Your task to perform on an android device: clear history in the chrome app Image 0: 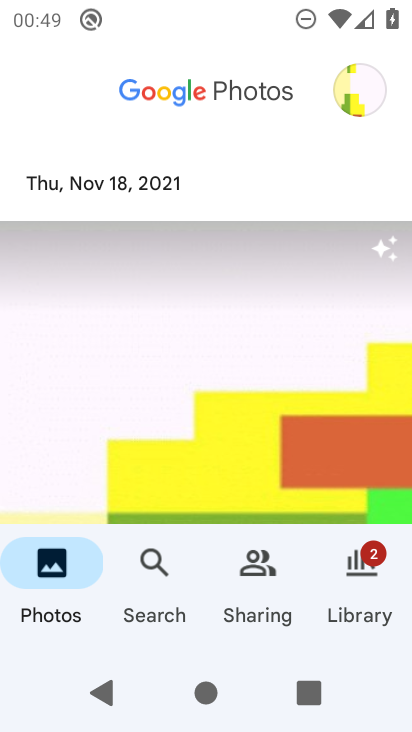
Step 0: drag from (320, 359) to (338, 137)
Your task to perform on an android device: clear history in the chrome app Image 1: 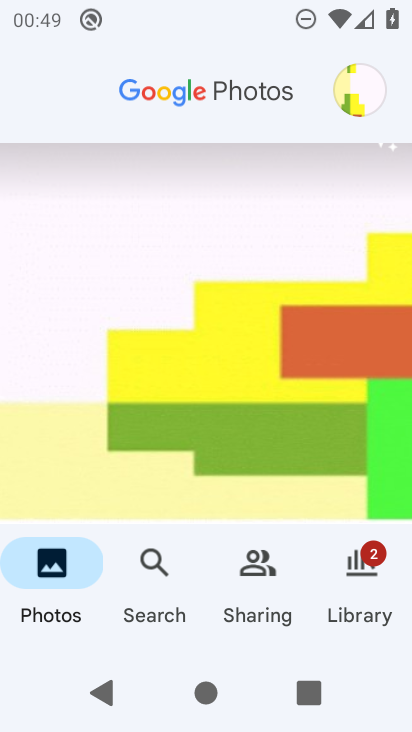
Step 1: drag from (334, 452) to (328, 173)
Your task to perform on an android device: clear history in the chrome app Image 2: 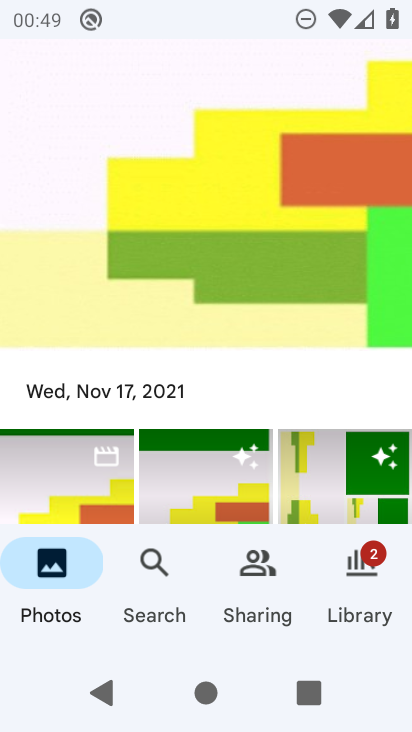
Step 2: drag from (307, 614) to (344, 253)
Your task to perform on an android device: clear history in the chrome app Image 3: 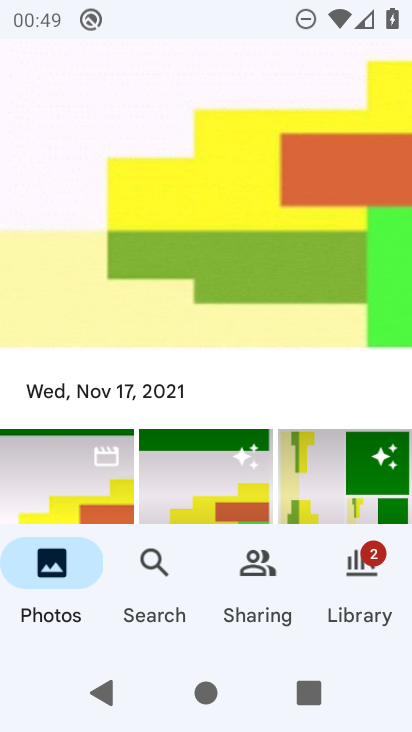
Step 3: press home button
Your task to perform on an android device: clear history in the chrome app Image 4: 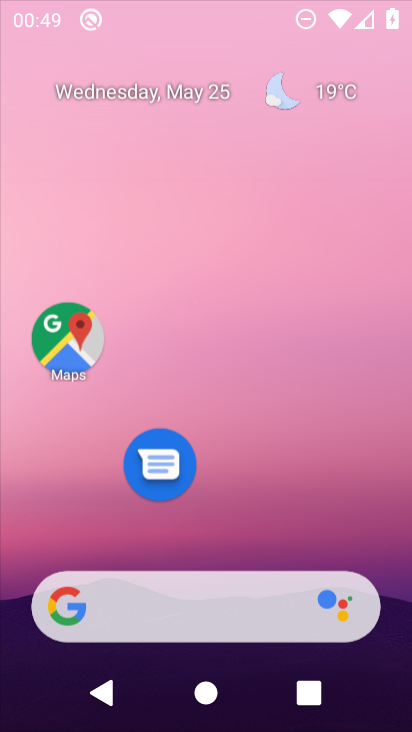
Step 4: drag from (146, 437) to (227, 223)
Your task to perform on an android device: clear history in the chrome app Image 5: 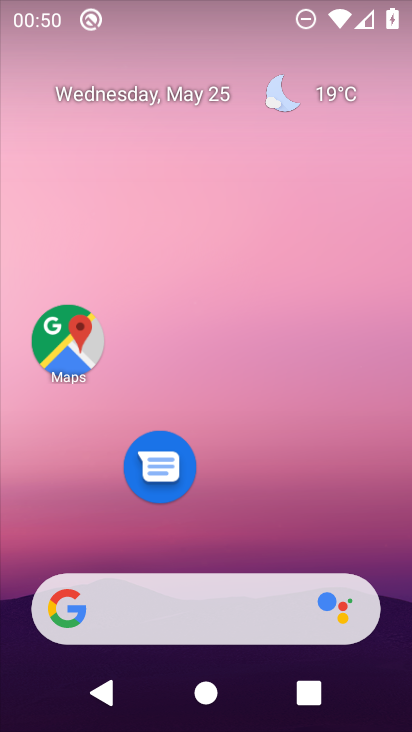
Step 5: drag from (205, 565) to (213, 70)
Your task to perform on an android device: clear history in the chrome app Image 6: 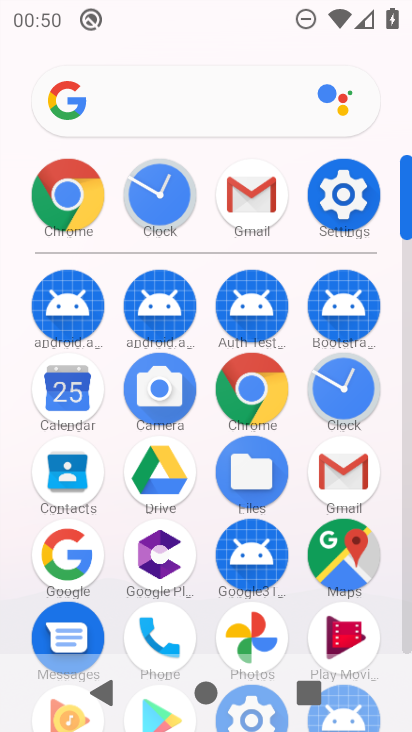
Step 6: click (235, 387)
Your task to perform on an android device: clear history in the chrome app Image 7: 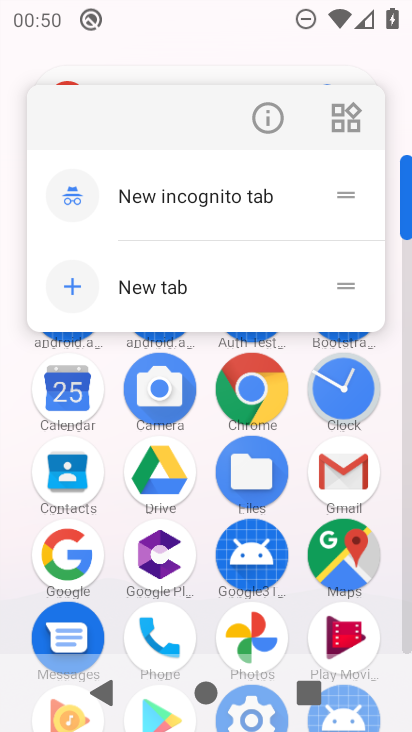
Step 7: click (261, 115)
Your task to perform on an android device: clear history in the chrome app Image 8: 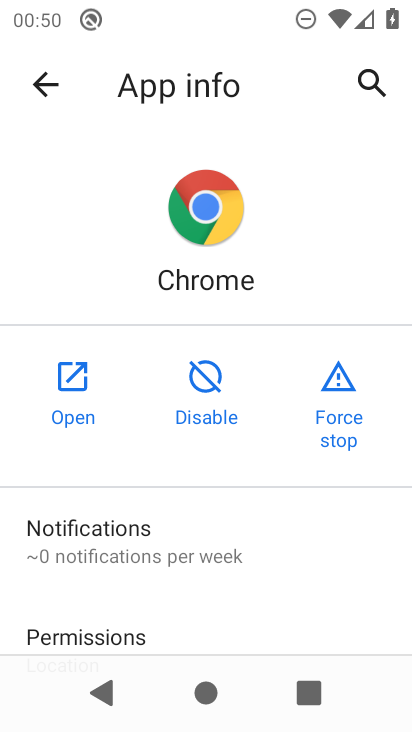
Step 8: click (85, 381)
Your task to perform on an android device: clear history in the chrome app Image 9: 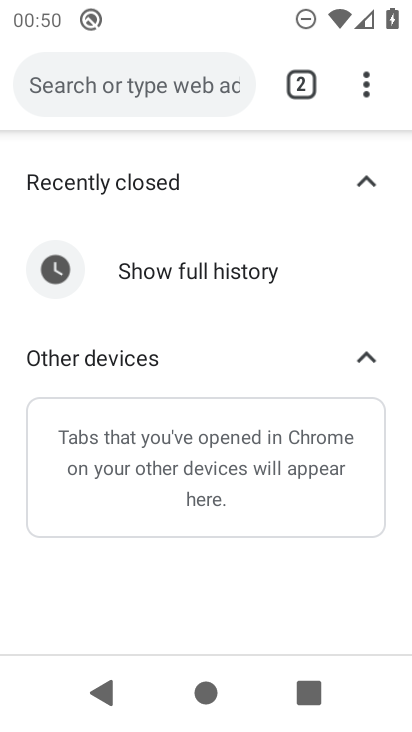
Step 9: click (334, 92)
Your task to perform on an android device: clear history in the chrome app Image 10: 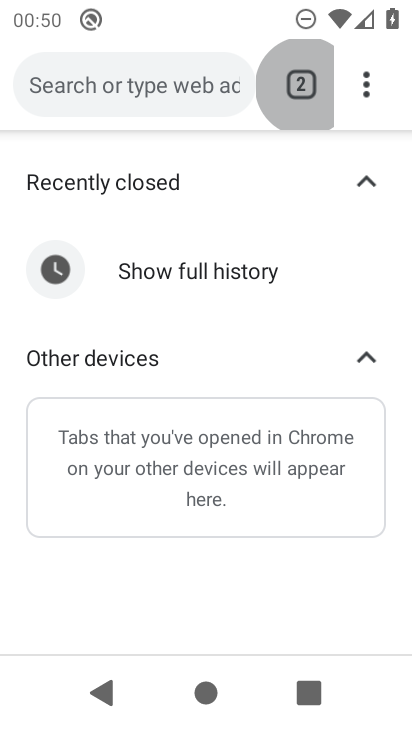
Step 10: click (336, 91)
Your task to perform on an android device: clear history in the chrome app Image 11: 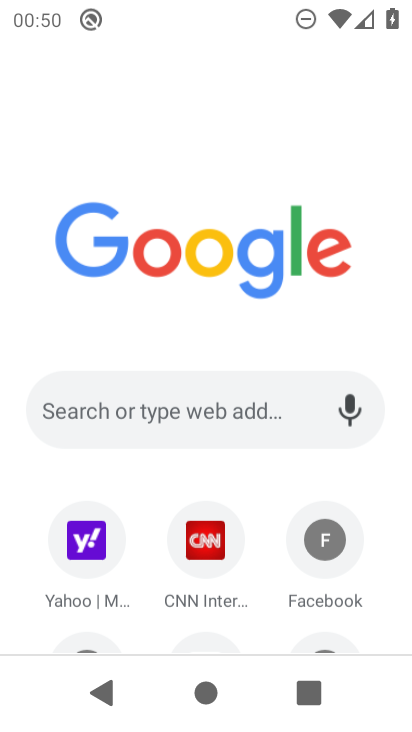
Step 11: click (250, 421)
Your task to perform on an android device: clear history in the chrome app Image 12: 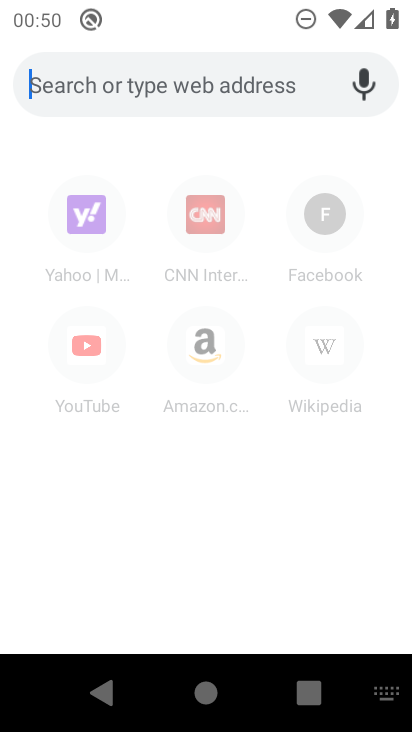
Step 12: click (196, 561)
Your task to perform on an android device: clear history in the chrome app Image 13: 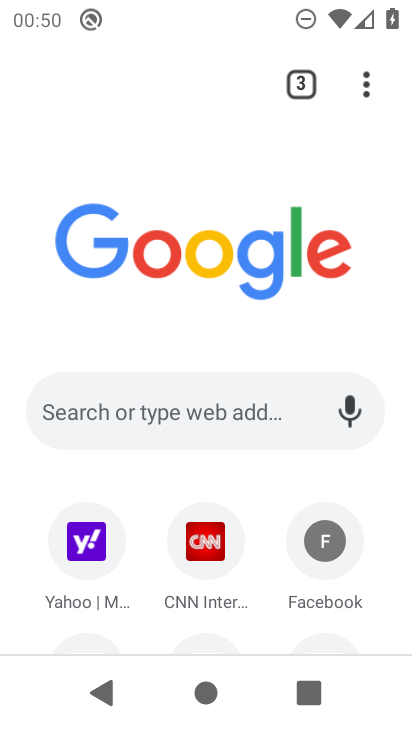
Step 13: click (398, 71)
Your task to perform on an android device: clear history in the chrome app Image 14: 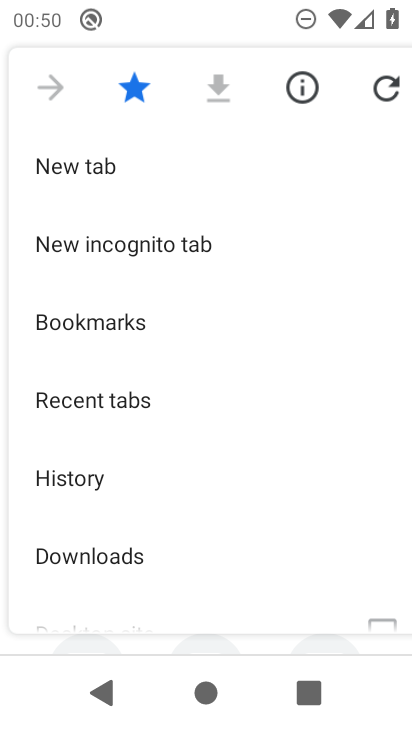
Step 14: drag from (179, 524) to (218, 223)
Your task to perform on an android device: clear history in the chrome app Image 15: 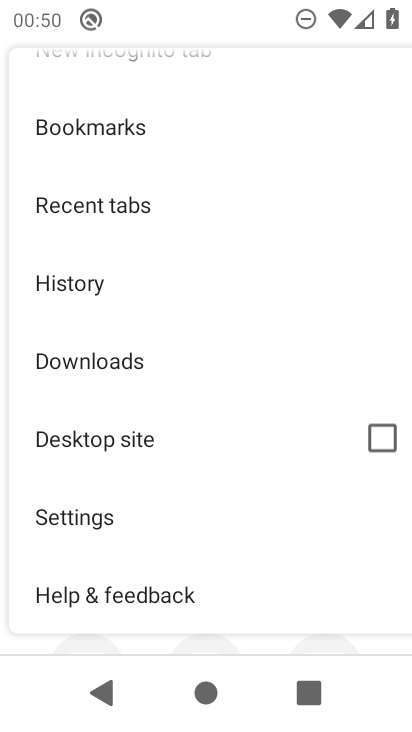
Step 15: click (53, 275)
Your task to perform on an android device: clear history in the chrome app Image 16: 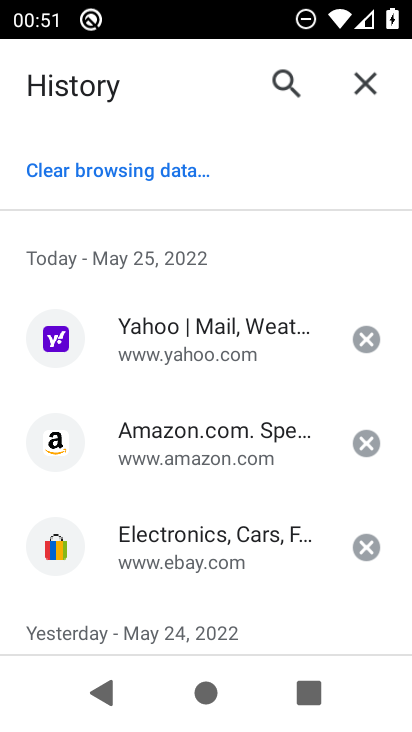
Step 16: drag from (151, 424) to (211, 201)
Your task to perform on an android device: clear history in the chrome app Image 17: 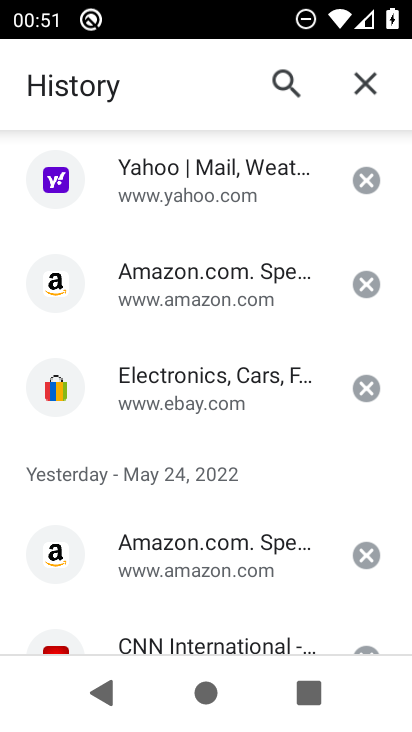
Step 17: drag from (132, 177) to (213, 644)
Your task to perform on an android device: clear history in the chrome app Image 18: 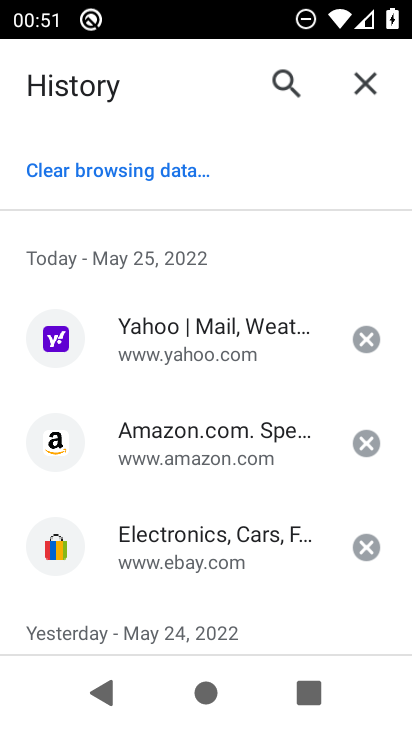
Step 18: click (86, 169)
Your task to perform on an android device: clear history in the chrome app Image 19: 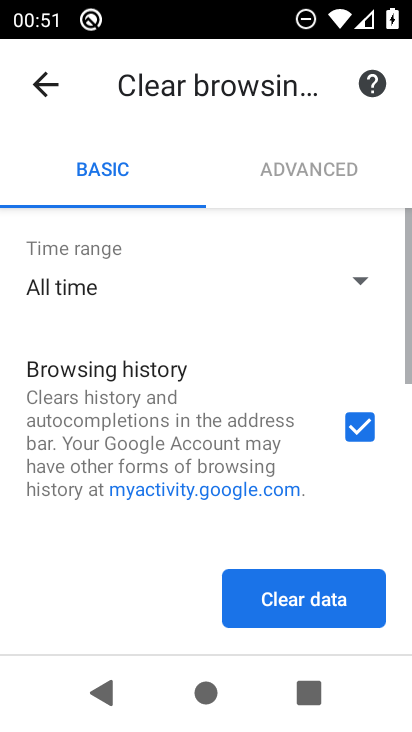
Step 19: drag from (229, 482) to (265, 221)
Your task to perform on an android device: clear history in the chrome app Image 20: 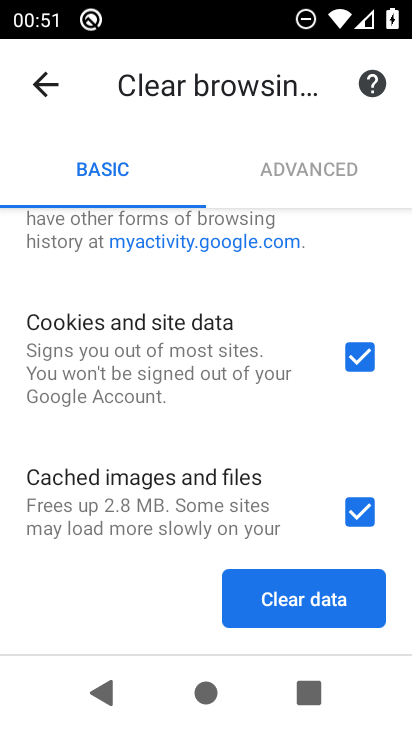
Step 20: drag from (179, 444) to (286, 140)
Your task to perform on an android device: clear history in the chrome app Image 21: 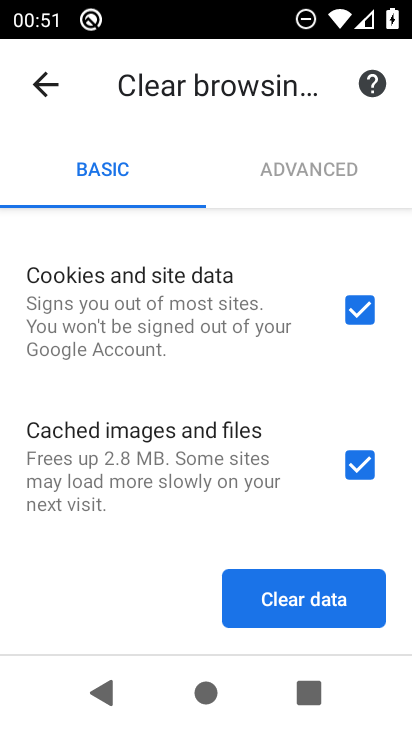
Step 21: drag from (151, 316) to (253, 728)
Your task to perform on an android device: clear history in the chrome app Image 22: 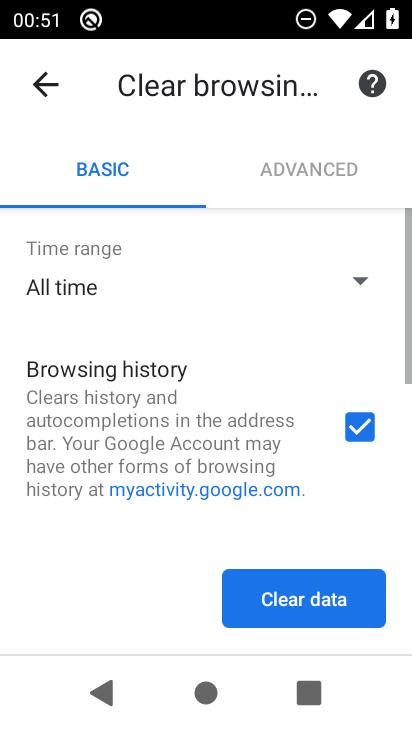
Step 22: drag from (129, 297) to (312, 723)
Your task to perform on an android device: clear history in the chrome app Image 23: 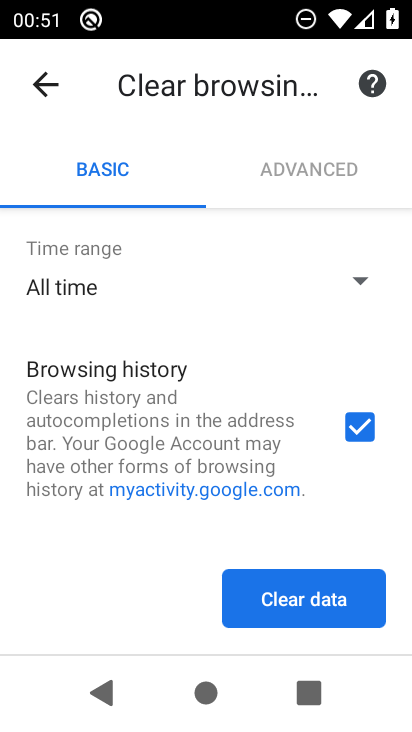
Step 23: click (315, 570)
Your task to perform on an android device: clear history in the chrome app Image 24: 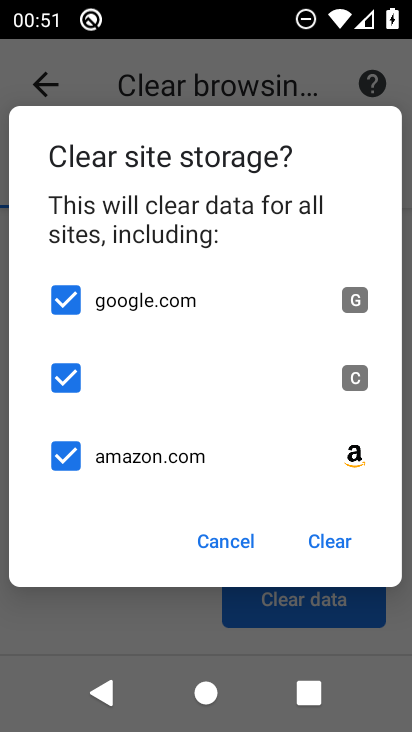
Step 24: click (325, 539)
Your task to perform on an android device: clear history in the chrome app Image 25: 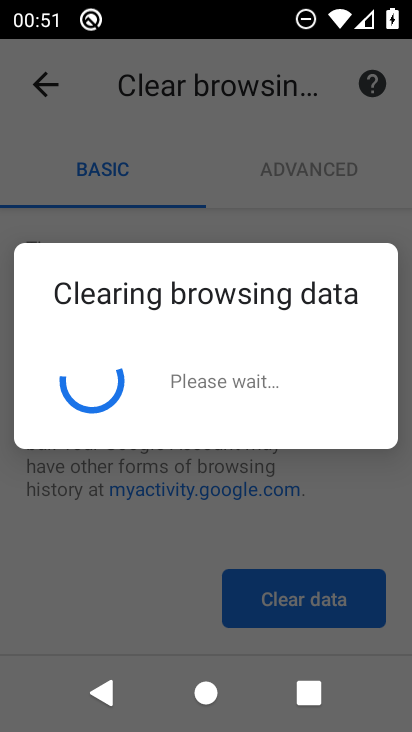
Step 25: task complete